Your task to perform on an android device: turn vacation reply on in the gmail app Image 0: 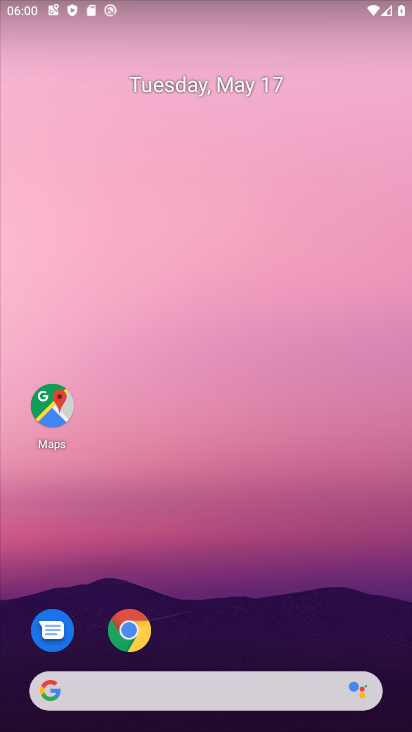
Step 0: drag from (291, 597) to (266, 458)
Your task to perform on an android device: turn vacation reply on in the gmail app Image 1: 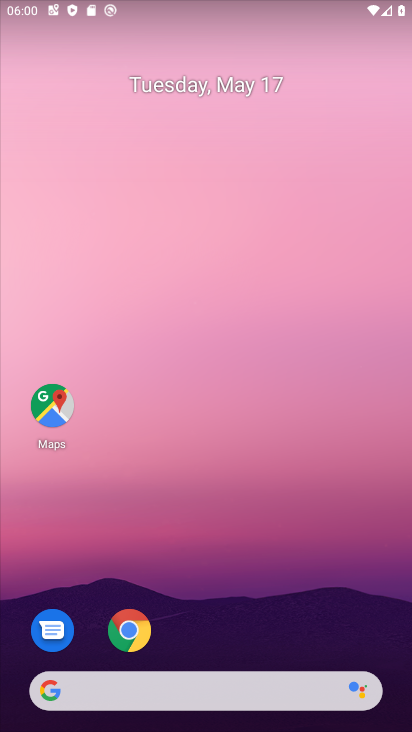
Step 1: drag from (267, 615) to (262, 175)
Your task to perform on an android device: turn vacation reply on in the gmail app Image 2: 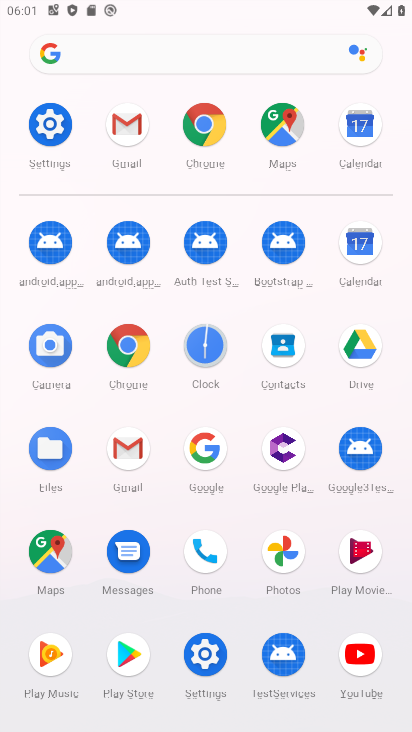
Step 2: click (138, 442)
Your task to perform on an android device: turn vacation reply on in the gmail app Image 3: 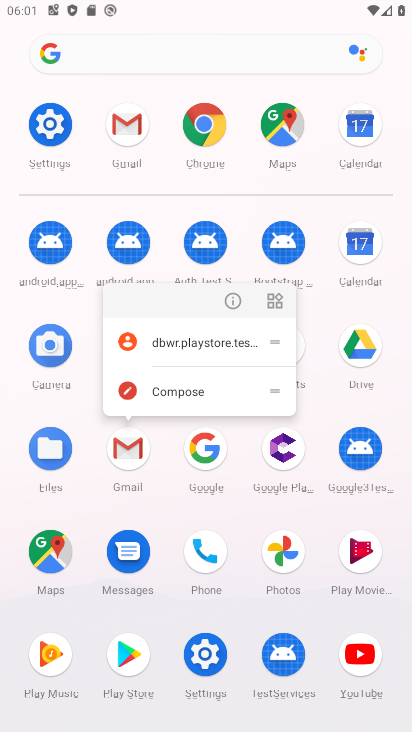
Step 3: click (127, 456)
Your task to perform on an android device: turn vacation reply on in the gmail app Image 4: 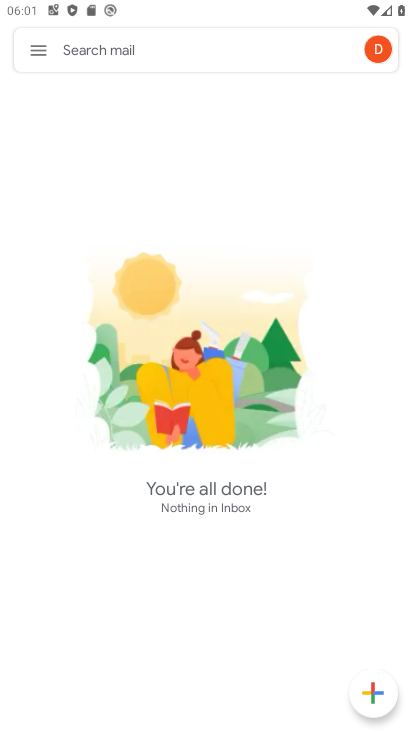
Step 4: click (47, 46)
Your task to perform on an android device: turn vacation reply on in the gmail app Image 5: 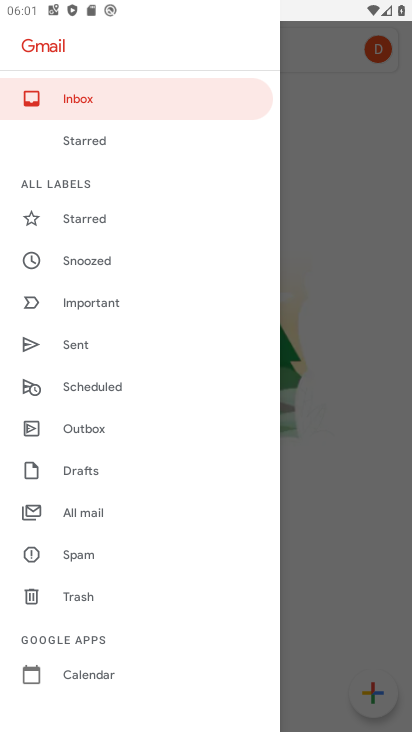
Step 5: drag from (168, 495) to (187, 235)
Your task to perform on an android device: turn vacation reply on in the gmail app Image 6: 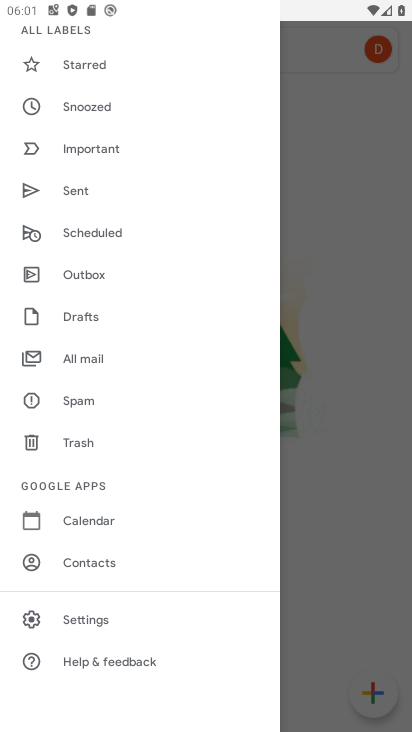
Step 6: click (91, 607)
Your task to perform on an android device: turn vacation reply on in the gmail app Image 7: 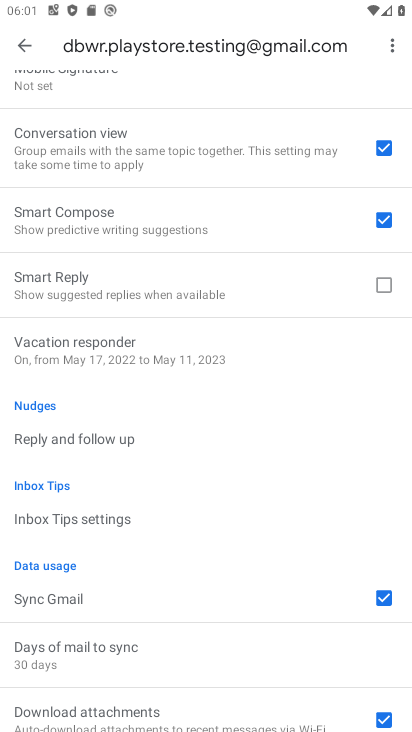
Step 7: drag from (135, 450) to (145, 337)
Your task to perform on an android device: turn vacation reply on in the gmail app Image 8: 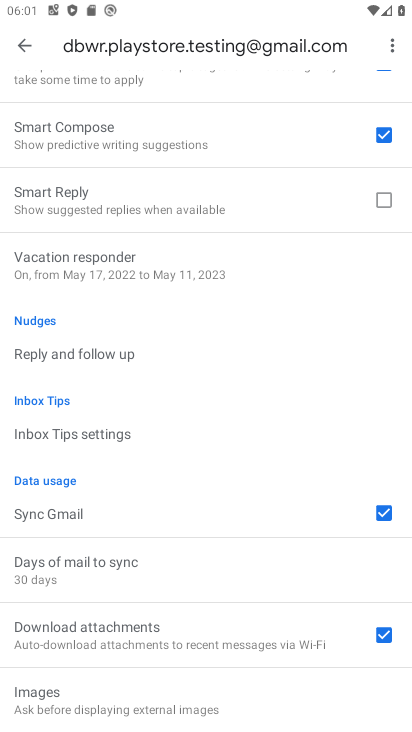
Step 8: click (139, 309)
Your task to perform on an android device: turn vacation reply on in the gmail app Image 9: 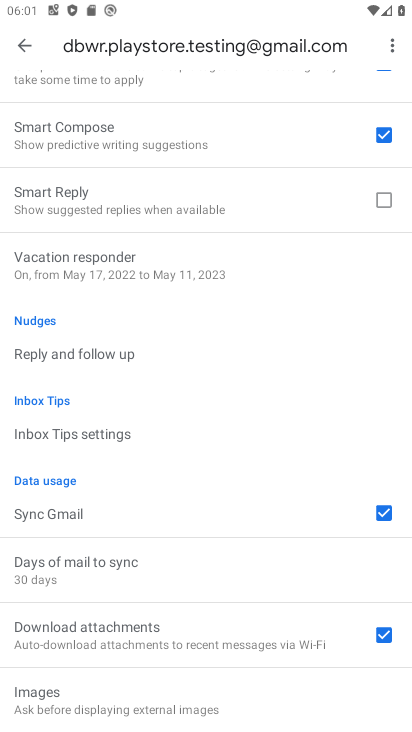
Step 9: click (139, 279)
Your task to perform on an android device: turn vacation reply on in the gmail app Image 10: 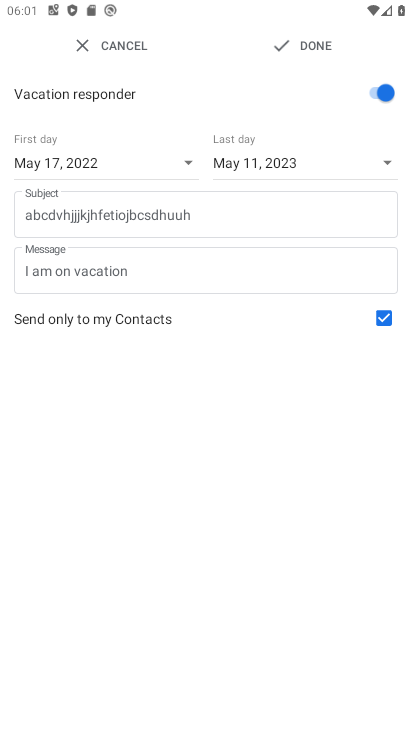
Step 10: click (316, 45)
Your task to perform on an android device: turn vacation reply on in the gmail app Image 11: 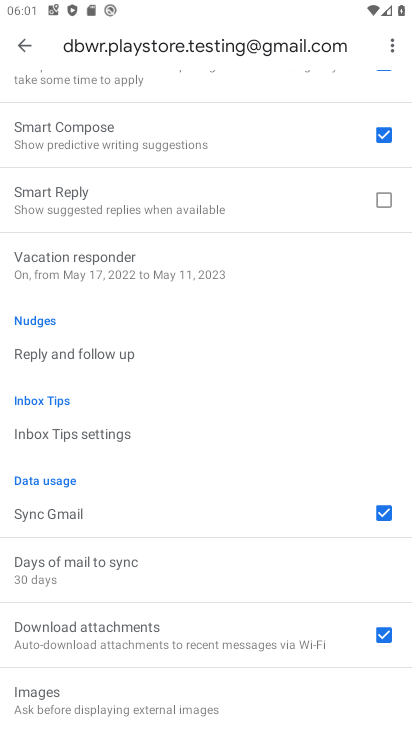
Step 11: task complete